Your task to perform on an android device: Is it going to rain today? Image 0: 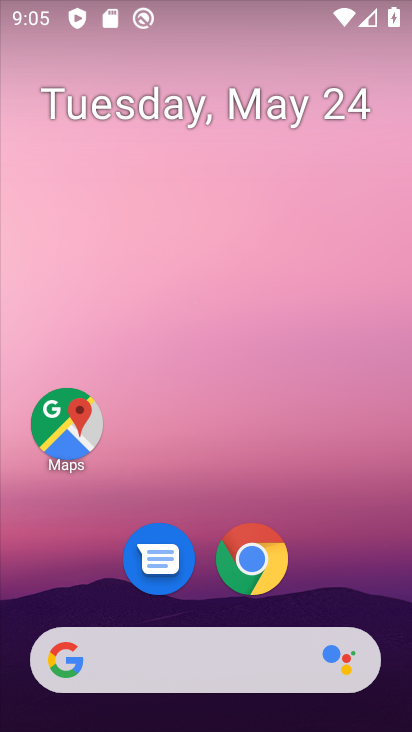
Step 0: click (228, 662)
Your task to perform on an android device: Is it going to rain today? Image 1: 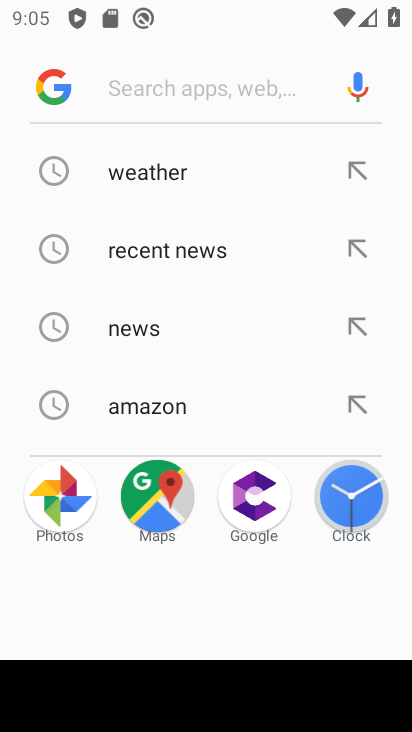
Step 1: click (170, 182)
Your task to perform on an android device: Is it going to rain today? Image 2: 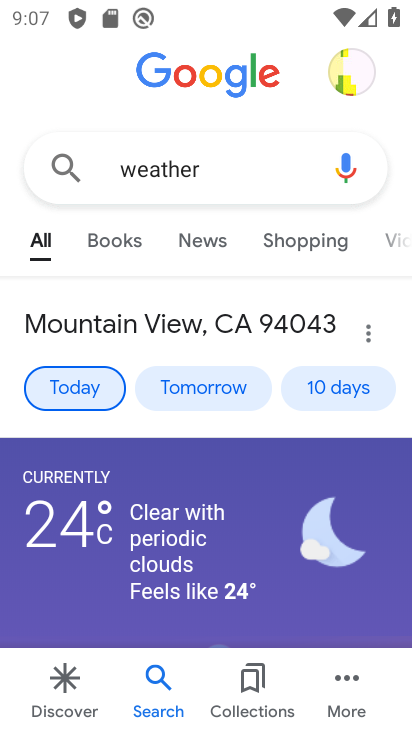
Step 2: task complete